Your task to perform on an android device: Clear the cart on costco. Image 0: 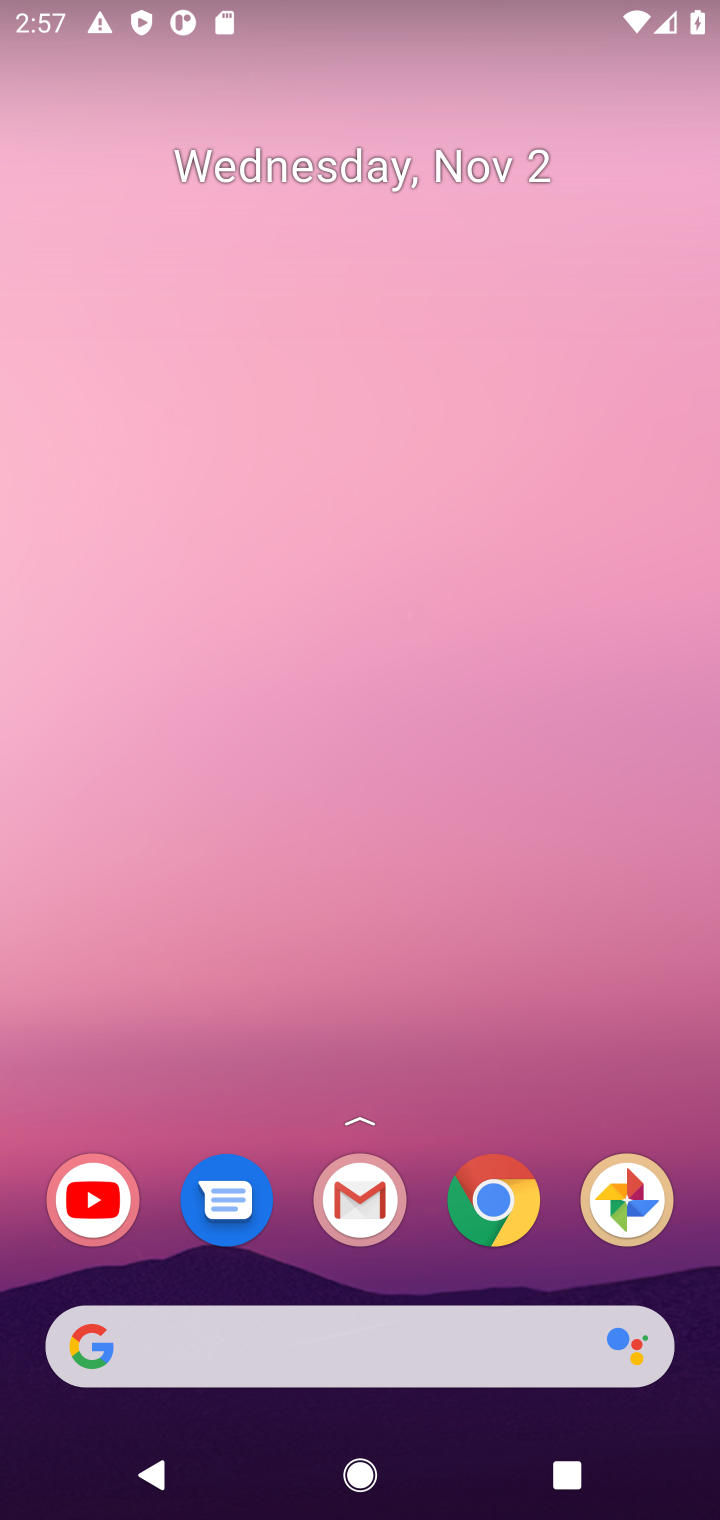
Step 0: click (492, 1216)
Your task to perform on an android device: Clear the cart on costco. Image 1: 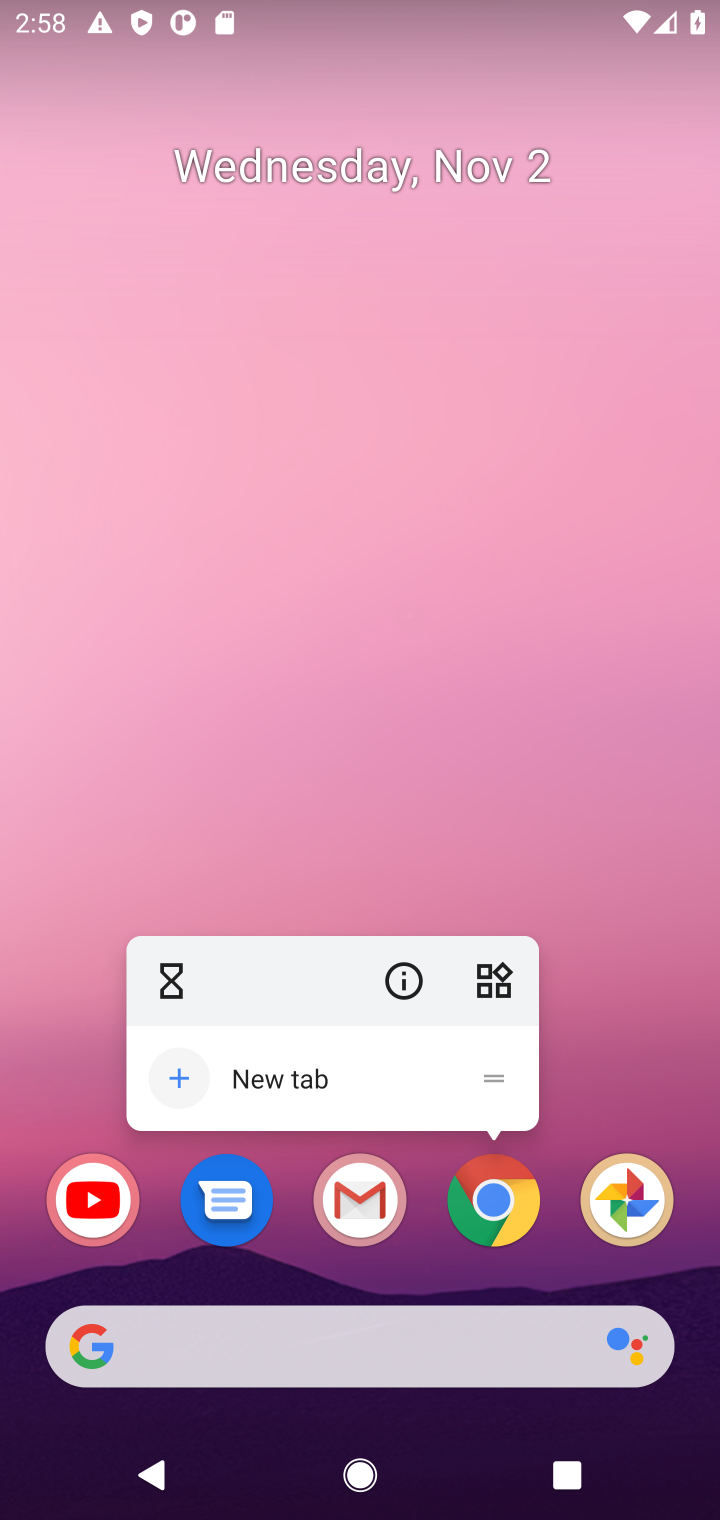
Step 1: click (520, 1177)
Your task to perform on an android device: Clear the cart on costco. Image 2: 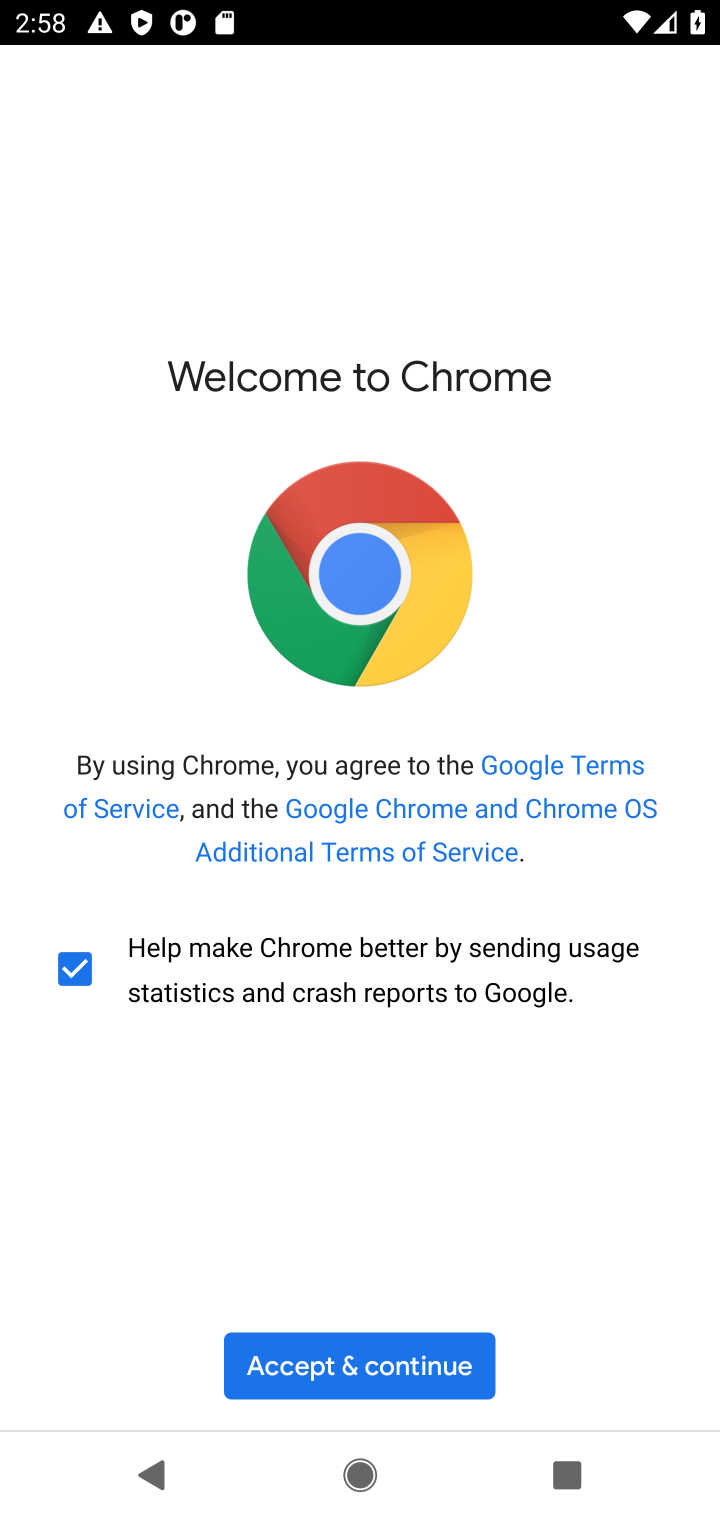
Step 2: click (411, 1358)
Your task to perform on an android device: Clear the cart on costco. Image 3: 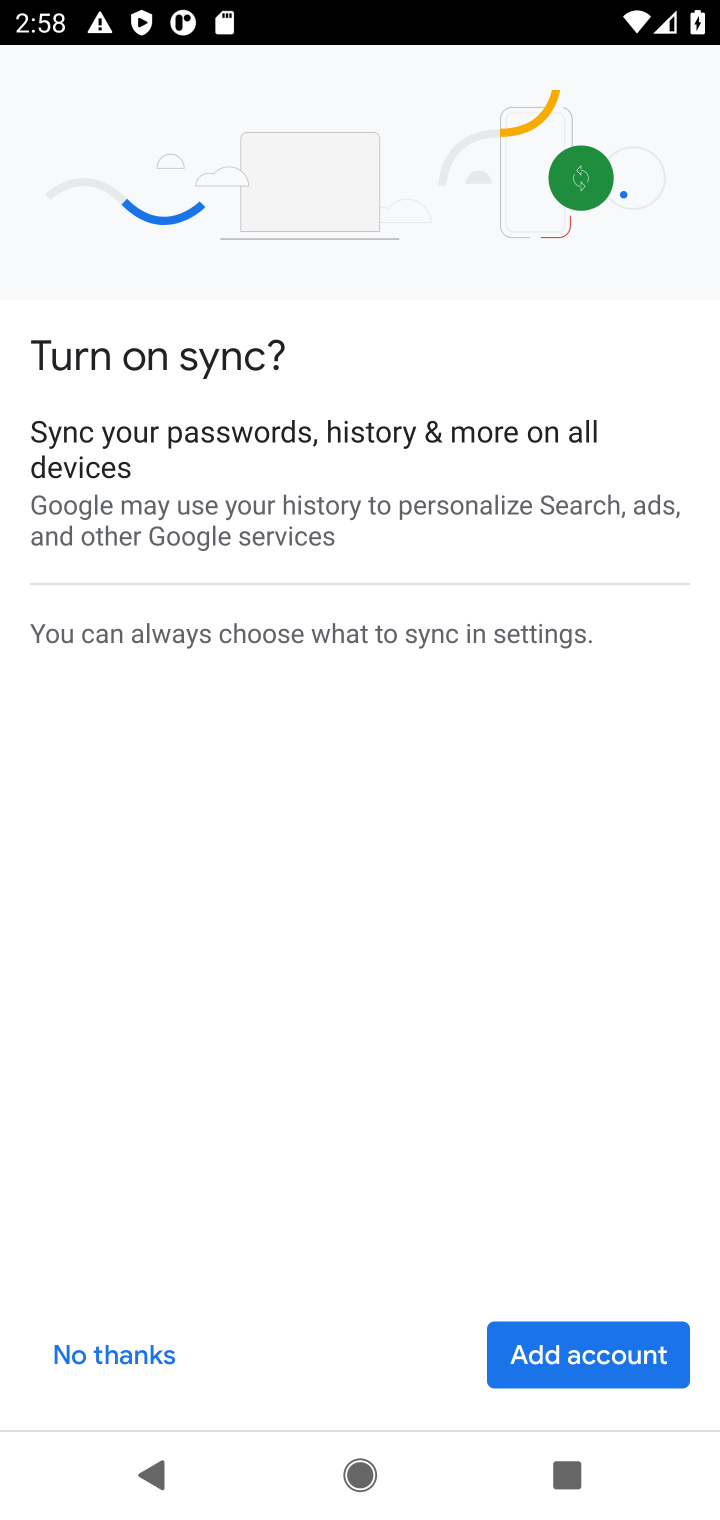
Step 3: click (61, 1343)
Your task to perform on an android device: Clear the cart on costco. Image 4: 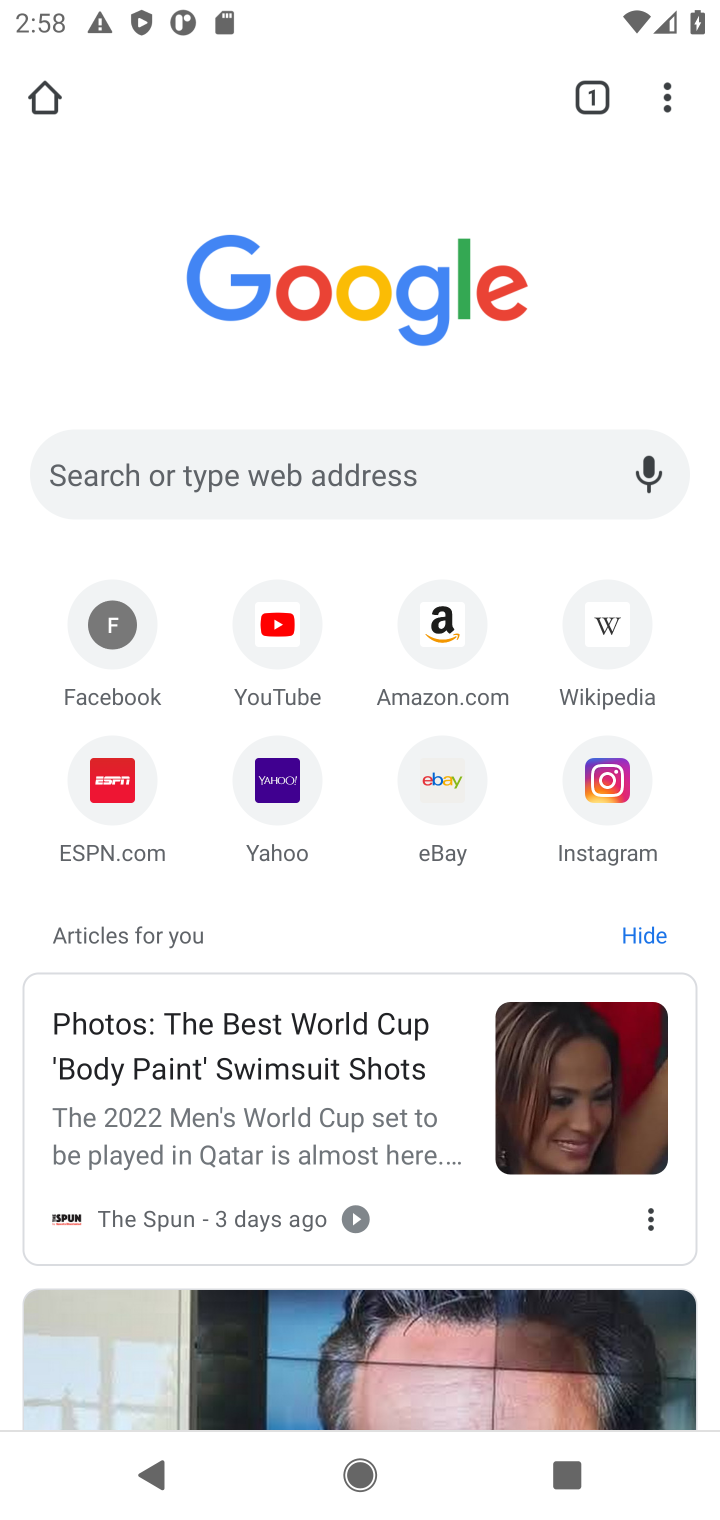
Step 4: click (313, 485)
Your task to perform on an android device: Clear the cart on costco. Image 5: 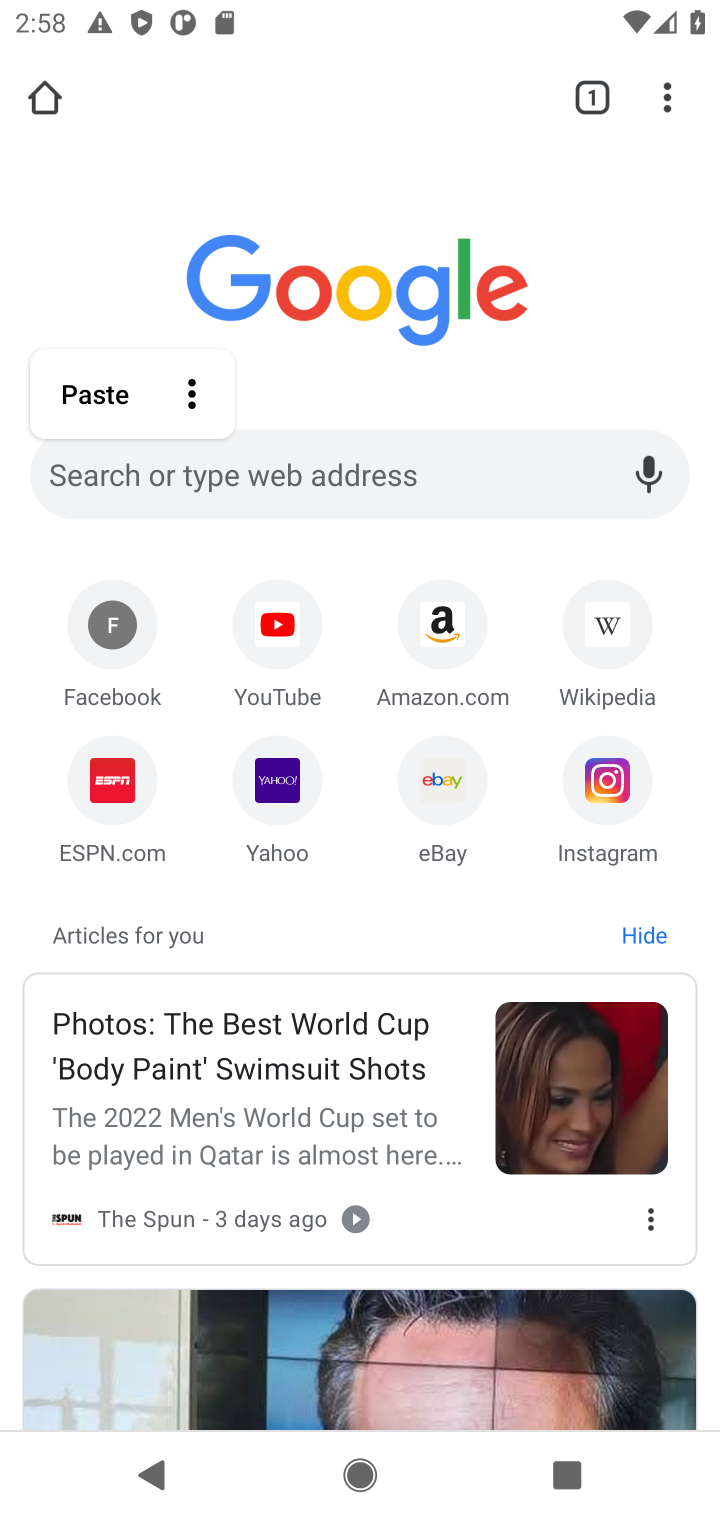
Step 5: type "costco"
Your task to perform on an android device: Clear the cart on costco. Image 6: 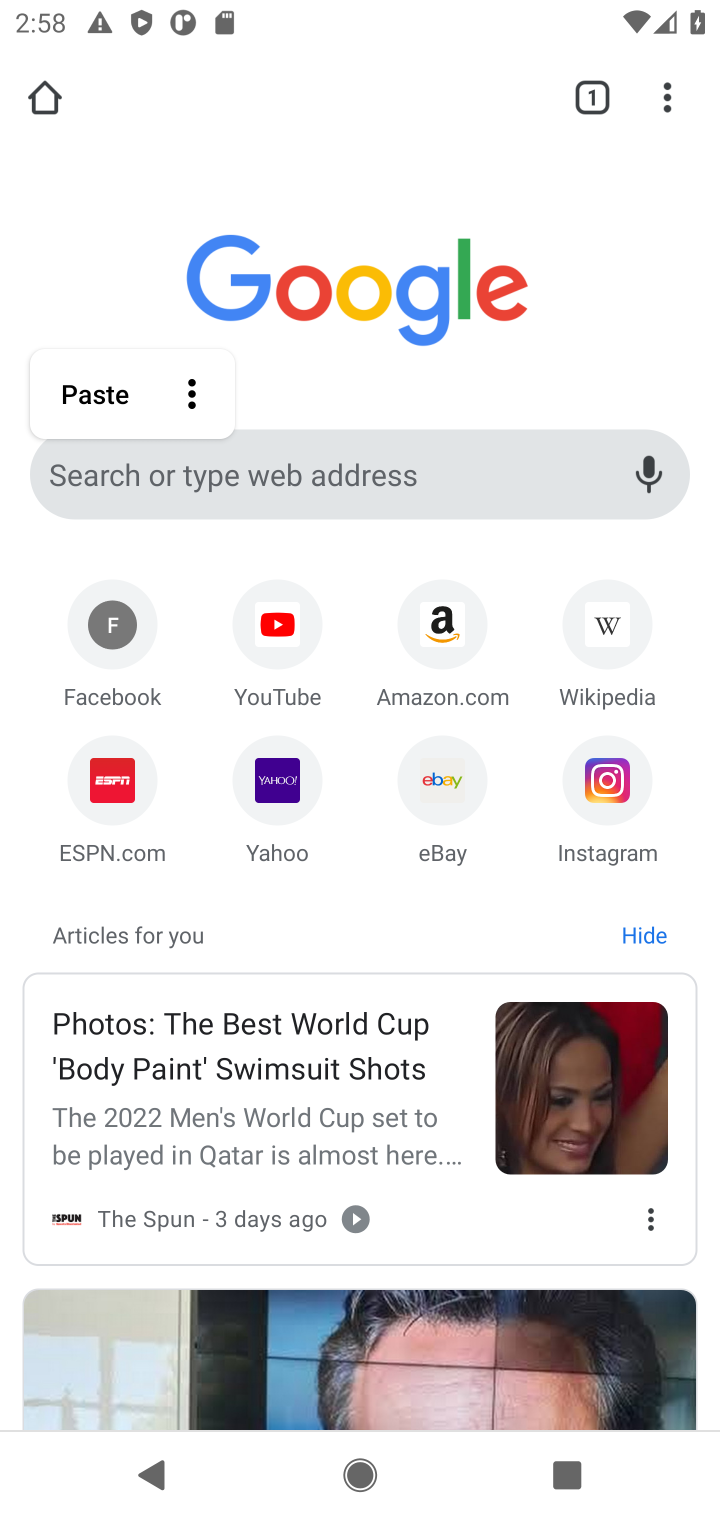
Step 6: click (155, 470)
Your task to perform on an android device: Clear the cart on costco. Image 7: 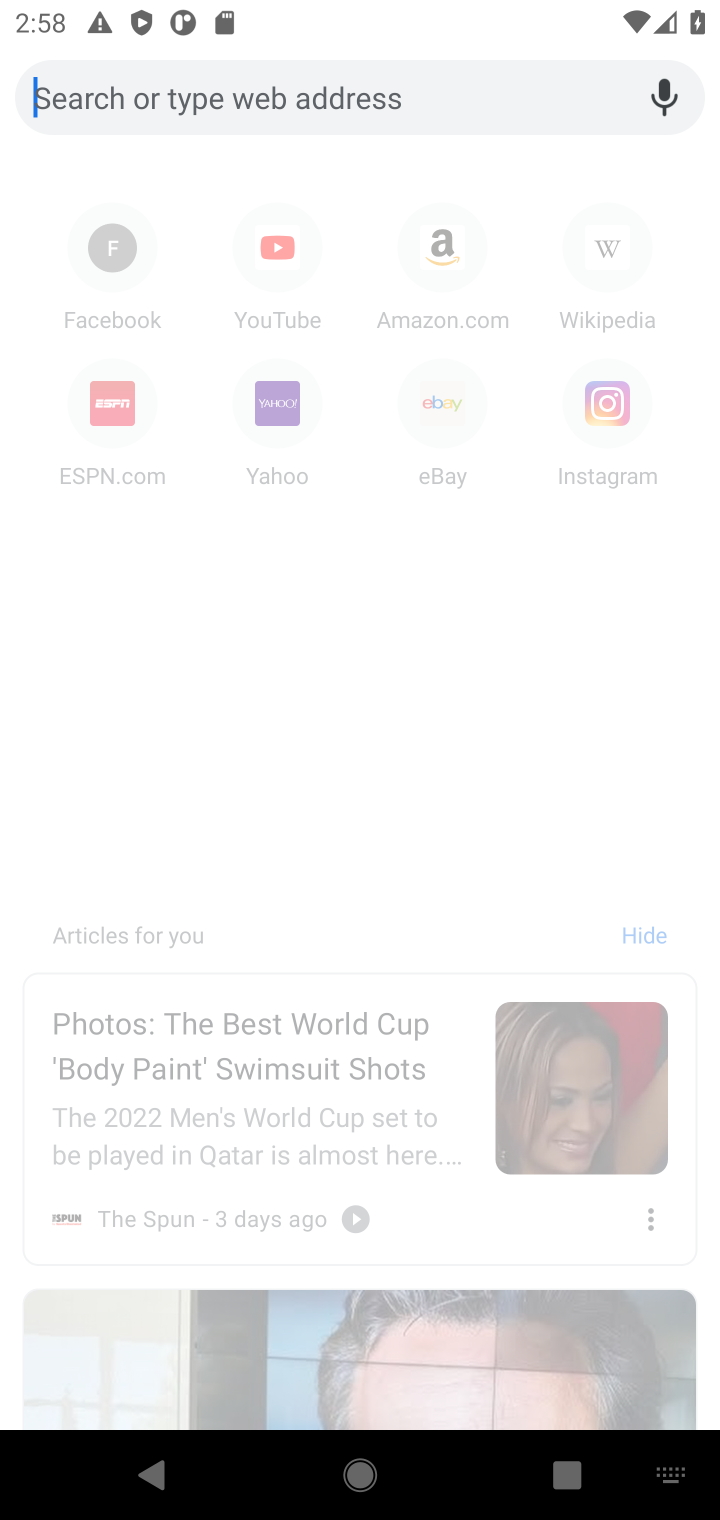
Step 7: type "costco"
Your task to perform on an android device: Clear the cart on costco. Image 8: 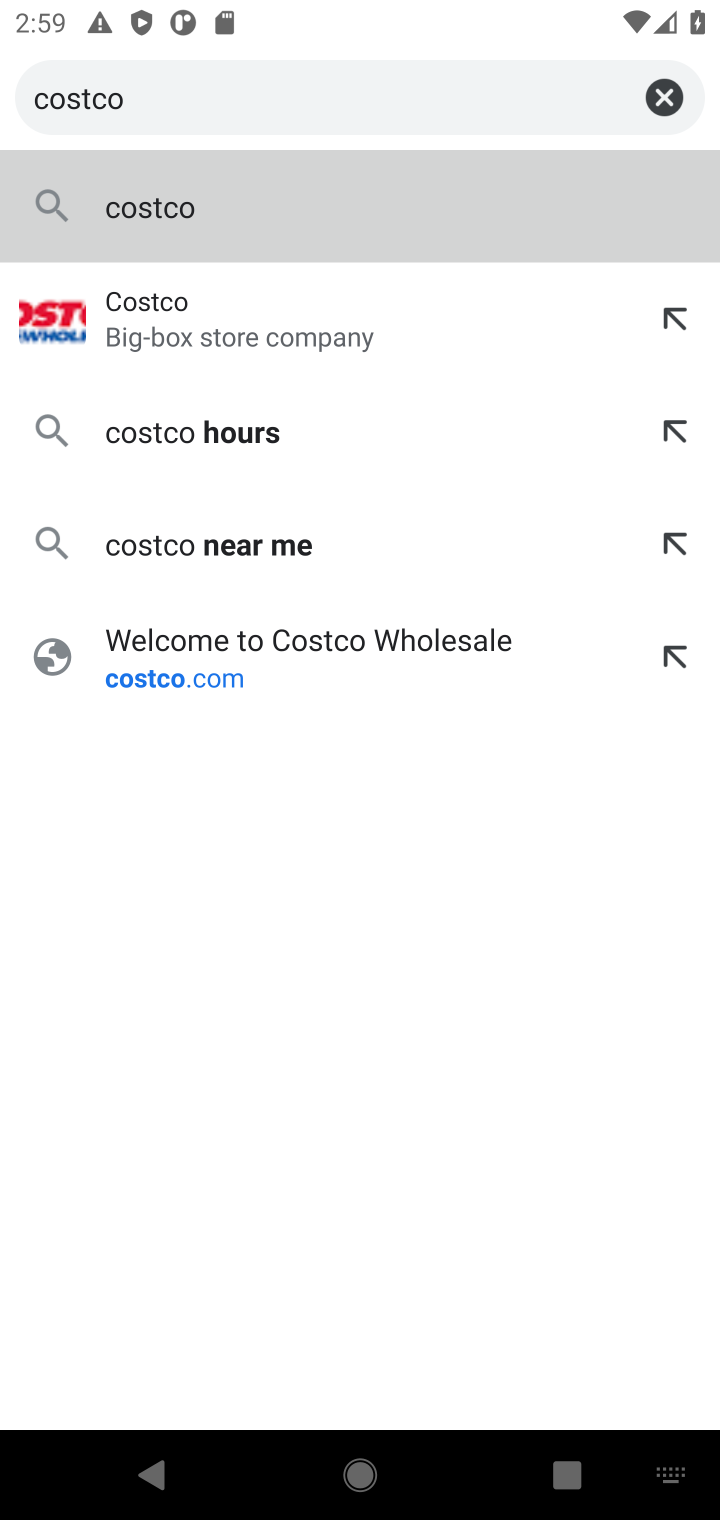
Step 8: click (254, 325)
Your task to perform on an android device: Clear the cart on costco. Image 9: 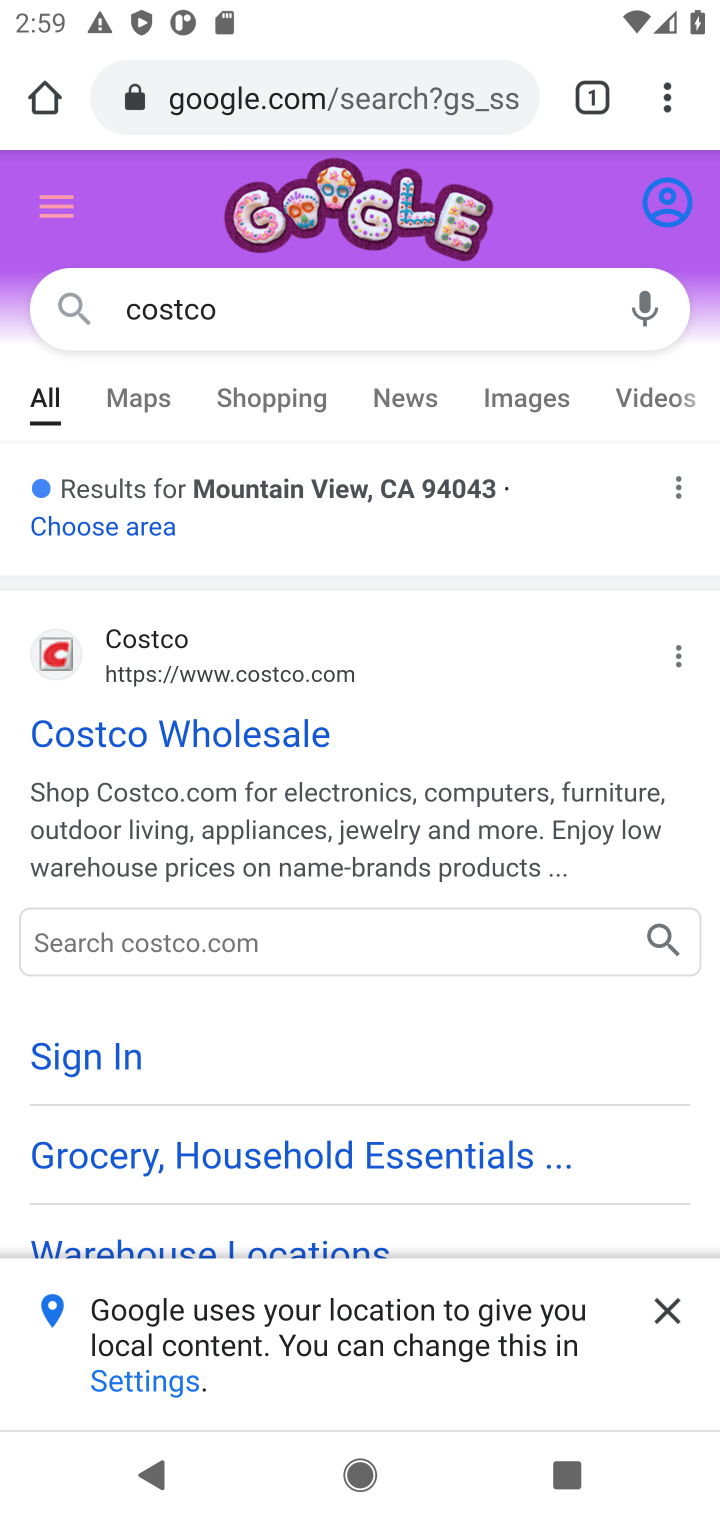
Step 9: click (245, 743)
Your task to perform on an android device: Clear the cart on costco. Image 10: 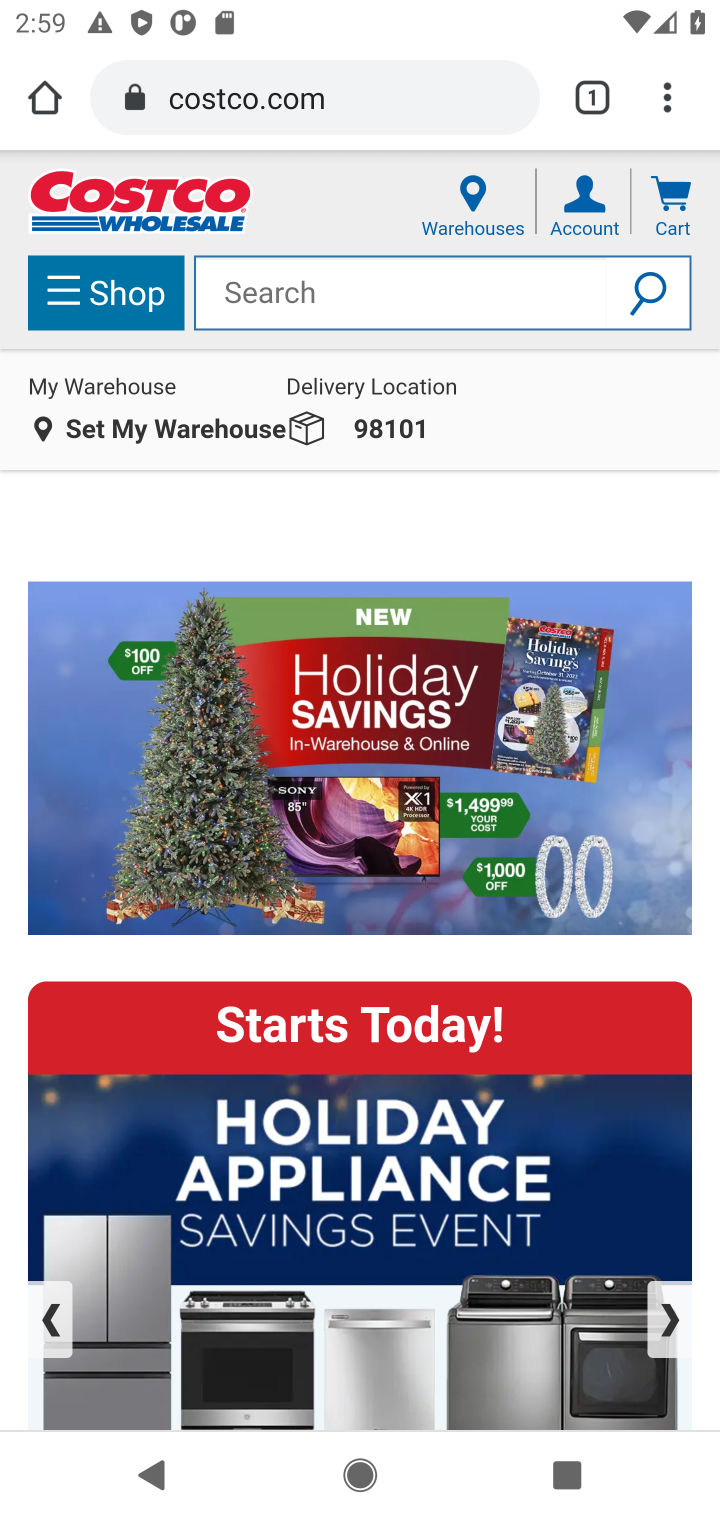
Step 10: click (668, 202)
Your task to perform on an android device: Clear the cart on costco. Image 11: 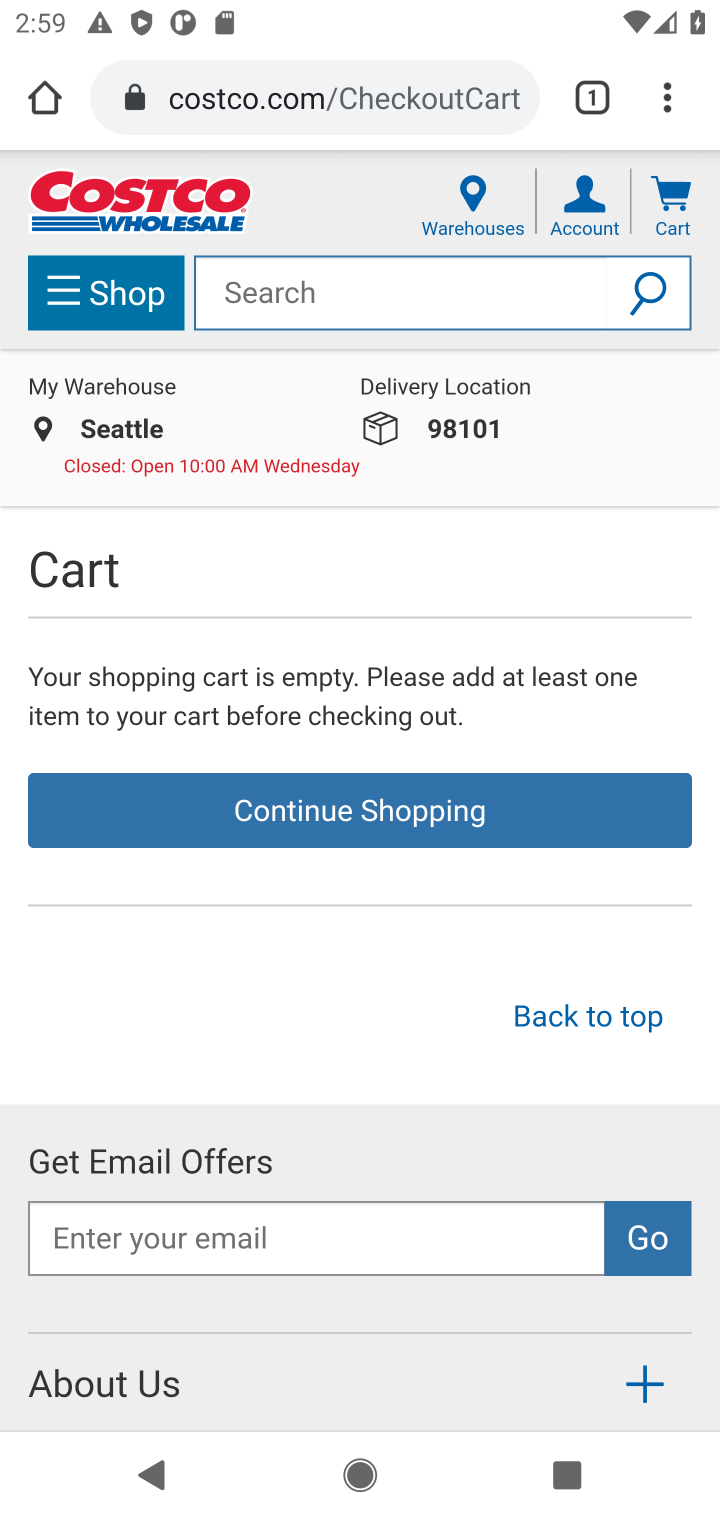
Step 11: task complete